Your task to perform on an android device: turn vacation reply on in the gmail app Image 0: 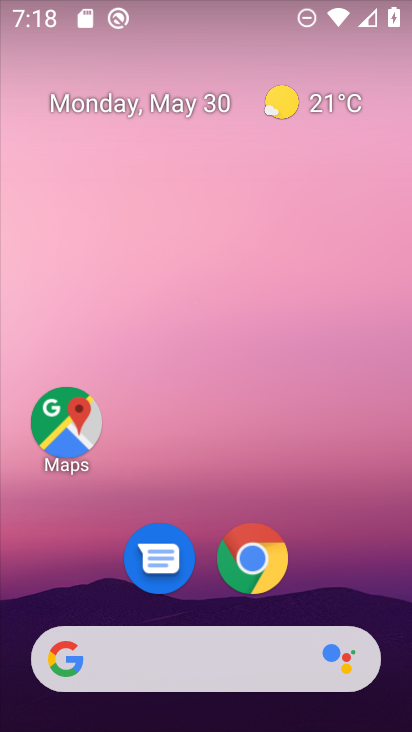
Step 0: drag from (331, 505) to (165, 24)
Your task to perform on an android device: turn vacation reply on in the gmail app Image 1: 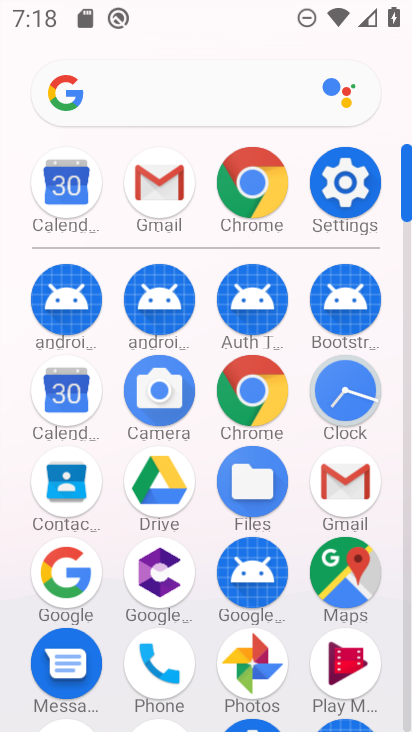
Step 1: click (159, 198)
Your task to perform on an android device: turn vacation reply on in the gmail app Image 2: 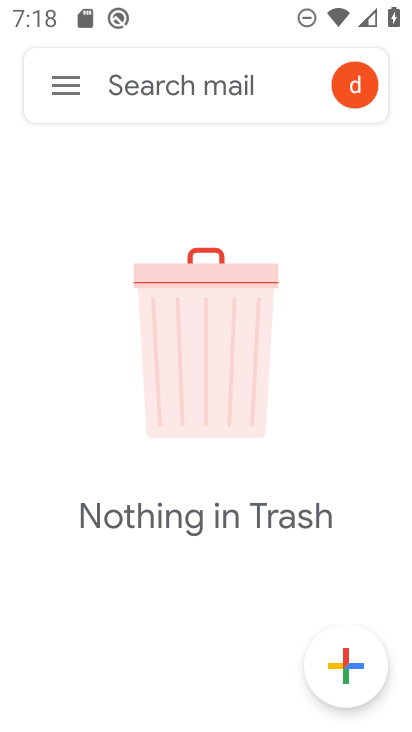
Step 2: click (73, 83)
Your task to perform on an android device: turn vacation reply on in the gmail app Image 3: 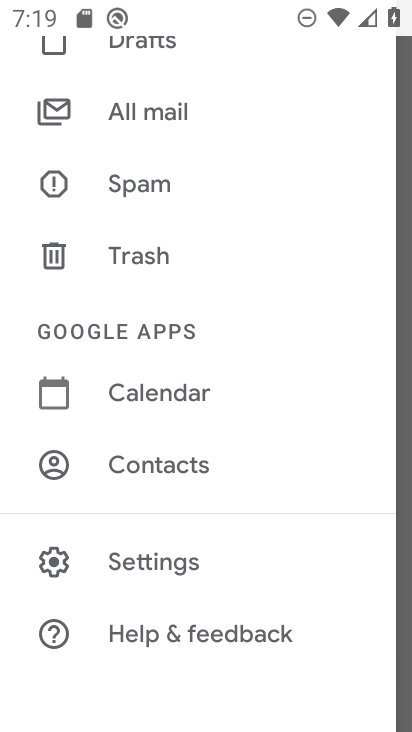
Step 3: click (150, 573)
Your task to perform on an android device: turn vacation reply on in the gmail app Image 4: 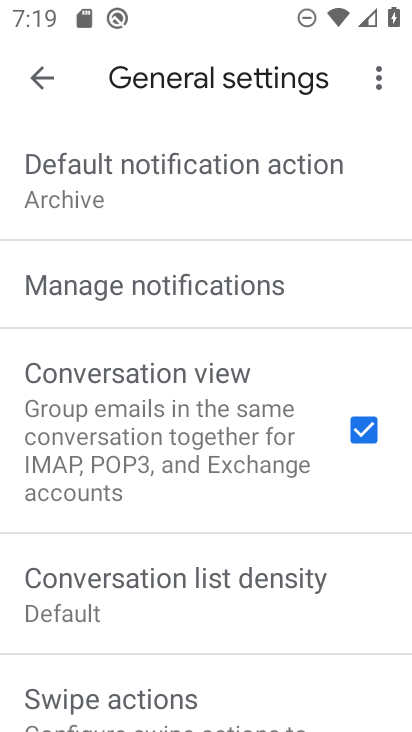
Step 4: click (38, 69)
Your task to perform on an android device: turn vacation reply on in the gmail app Image 5: 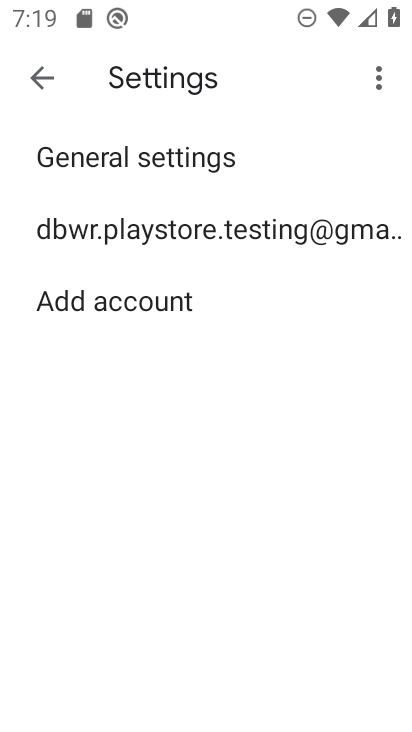
Step 5: click (110, 215)
Your task to perform on an android device: turn vacation reply on in the gmail app Image 6: 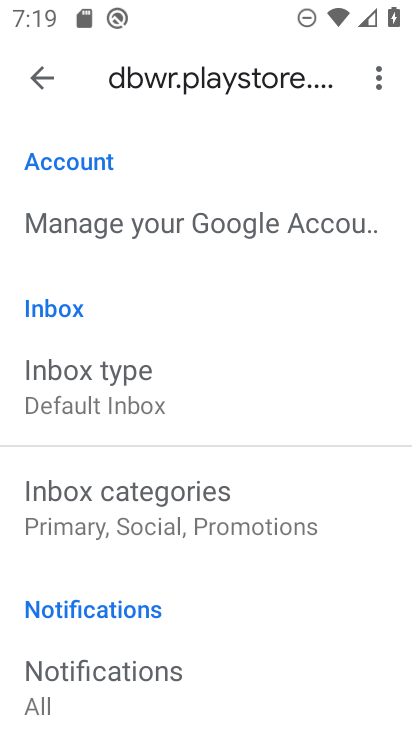
Step 6: drag from (261, 584) to (255, 182)
Your task to perform on an android device: turn vacation reply on in the gmail app Image 7: 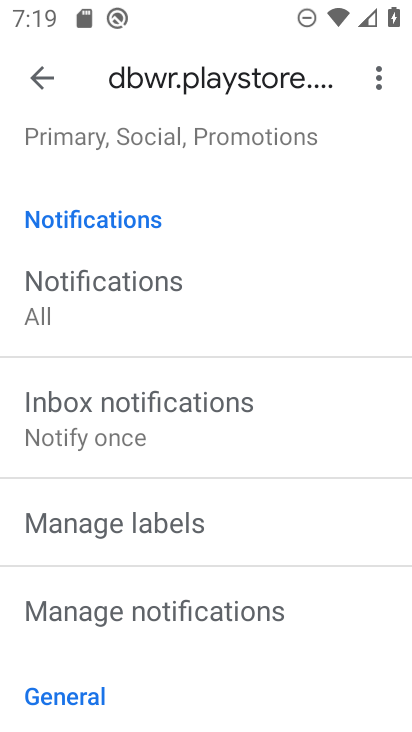
Step 7: drag from (262, 527) to (225, 155)
Your task to perform on an android device: turn vacation reply on in the gmail app Image 8: 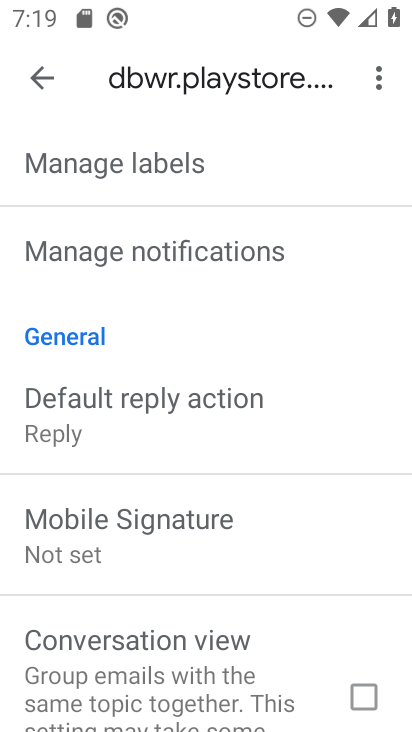
Step 8: drag from (310, 534) to (252, 93)
Your task to perform on an android device: turn vacation reply on in the gmail app Image 9: 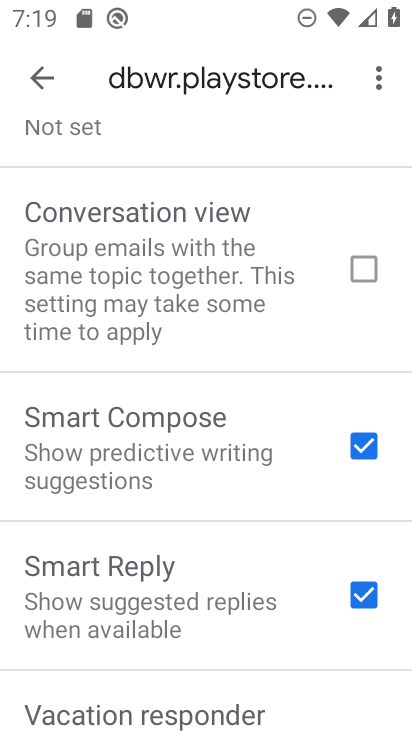
Step 9: click (182, 719)
Your task to perform on an android device: turn vacation reply on in the gmail app Image 10: 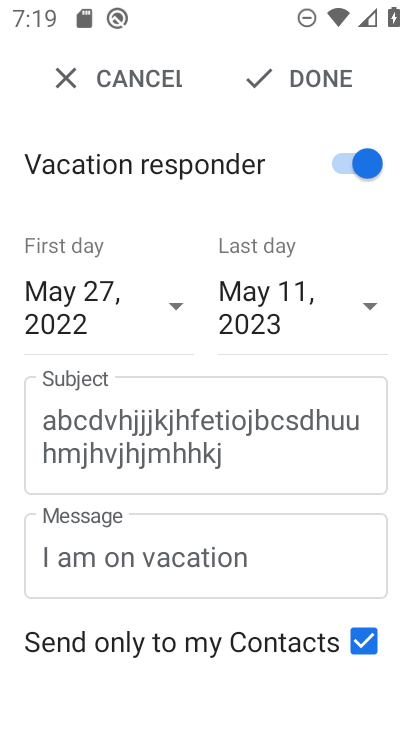
Step 10: task complete